Your task to perform on an android device: delete browsing data in the chrome app Image 0: 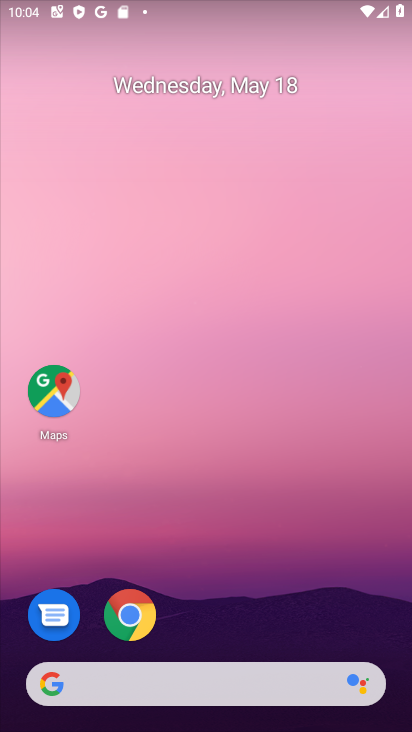
Step 0: click (149, 614)
Your task to perform on an android device: delete browsing data in the chrome app Image 1: 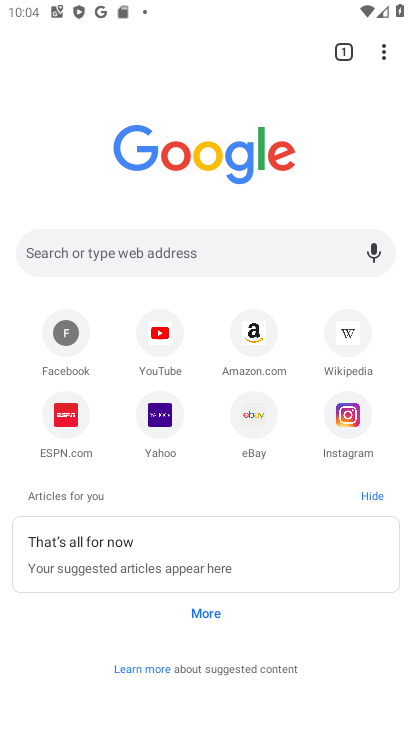
Step 1: click (384, 53)
Your task to perform on an android device: delete browsing data in the chrome app Image 2: 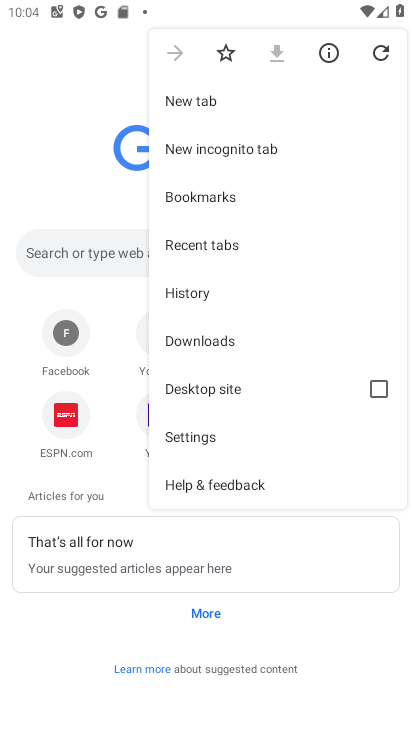
Step 2: click (210, 285)
Your task to perform on an android device: delete browsing data in the chrome app Image 3: 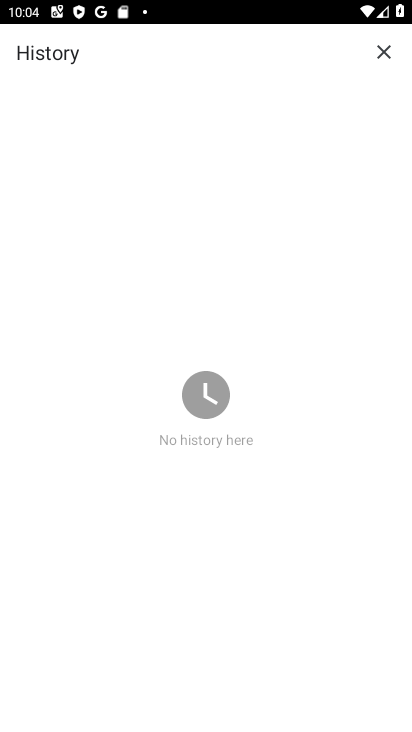
Step 3: task complete